Your task to perform on an android device: Open location settings Image 0: 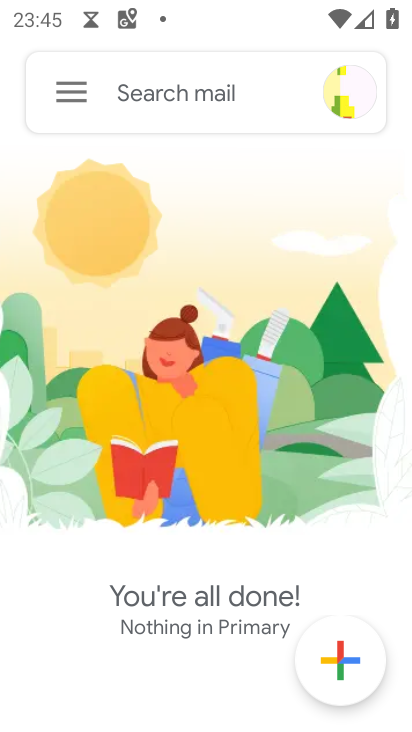
Step 0: press home button
Your task to perform on an android device: Open location settings Image 1: 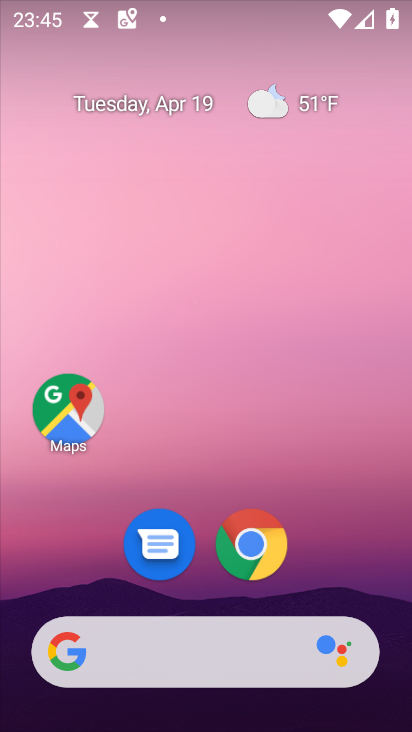
Step 1: drag from (303, 570) to (348, 39)
Your task to perform on an android device: Open location settings Image 2: 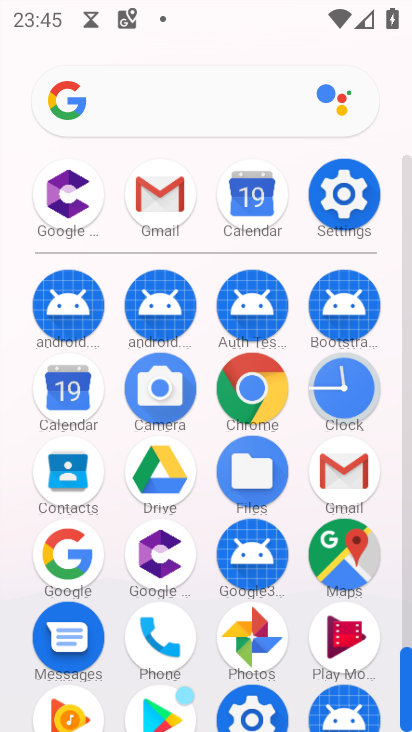
Step 2: click (337, 194)
Your task to perform on an android device: Open location settings Image 3: 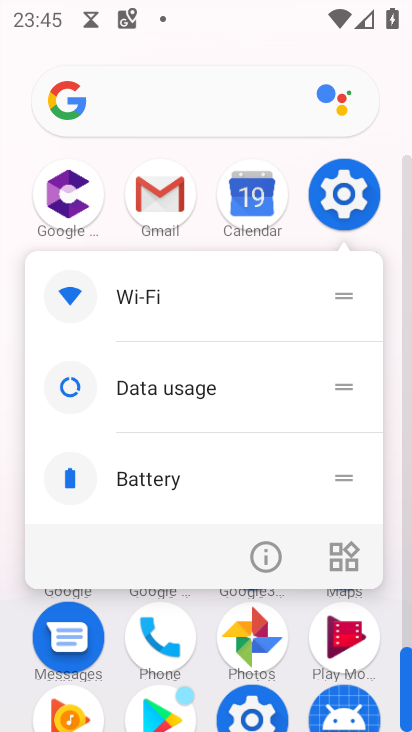
Step 3: click (337, 194)
Your task to perform on an android device: Open location settings Image 4: 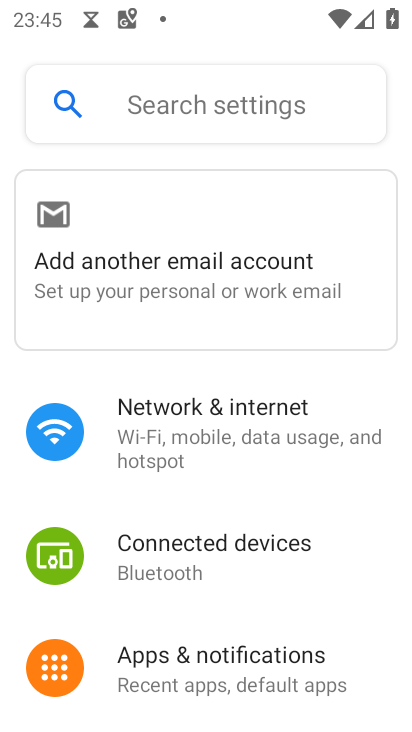
Step 4: drag from (254, 286) to (274, 191)
Your task to perform on an android device: Open location settings Image 5: 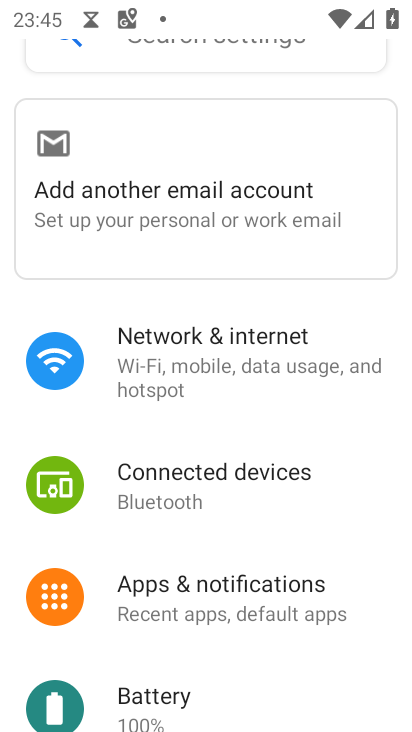
Step 5: drag from (257, 298) to (282, 213)
Your task to perform on an android device: Open location settings Image 6: 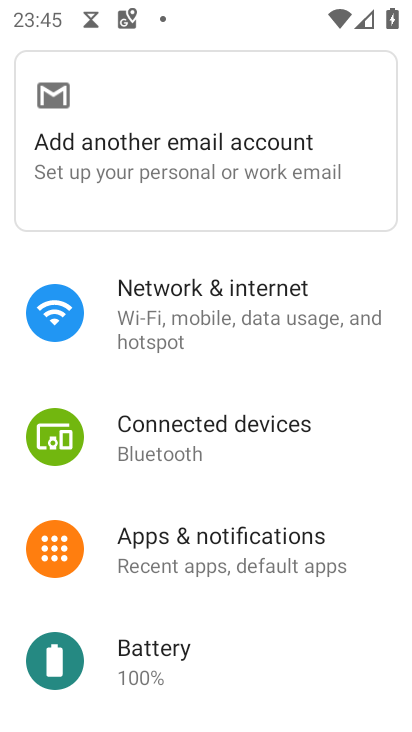
Step 6: drag from (276, 327) to (285, 257)
Your task to perform on an android device: Open location settings Image 7: 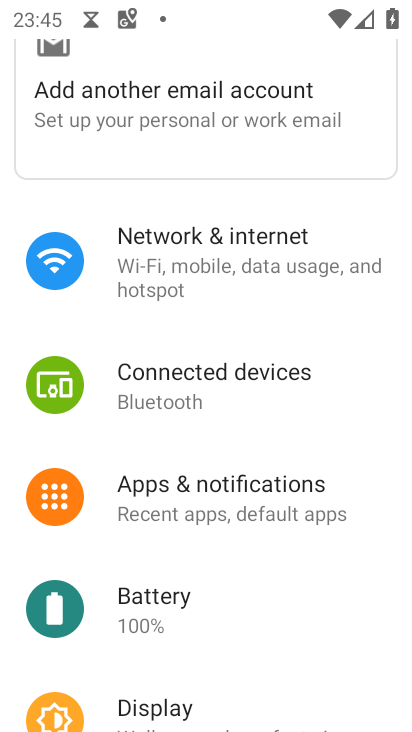
Step 7: drag from (286, 335) to (290, 267)
Your task to perform on an android device: Open location settings Image 8: 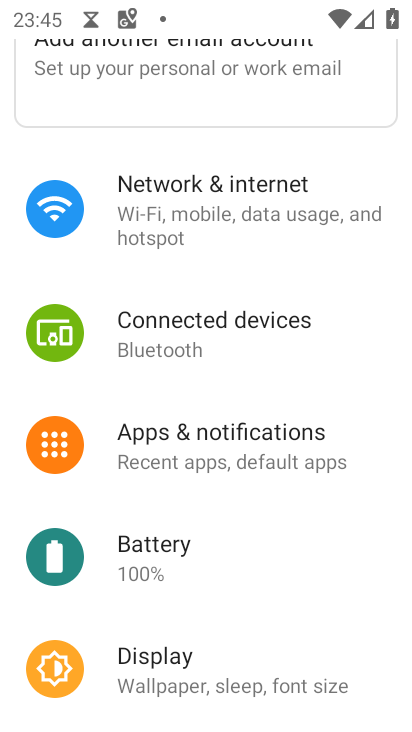
Step 8: drag from (295, 363) to (309, 305)
Your task to perform on an android device: Open location settings Image 9: 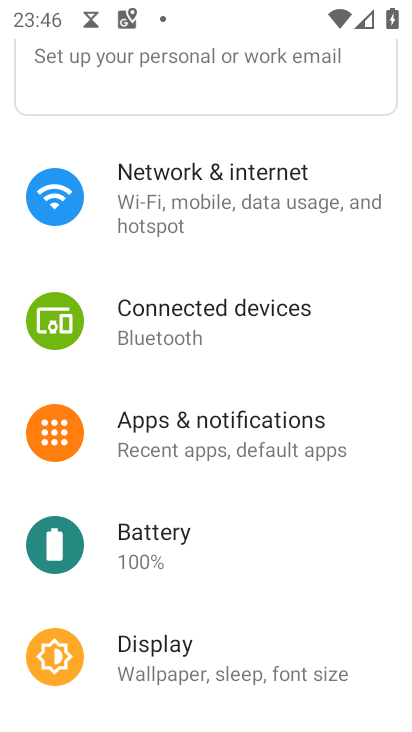
Step 9: drag from (290, 377) to (317, 299)
Your task to perform on an android device: Open location settings Image 10: 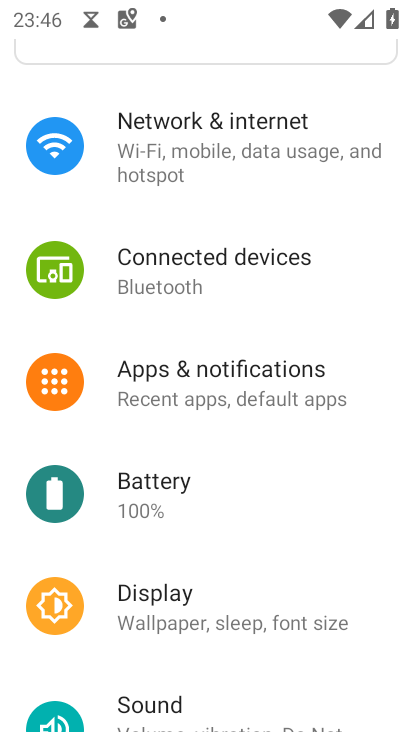
Step 10: drag from (334, 367) to (343, 276)
Your task to perform on an android device: Open location settings Image 11: 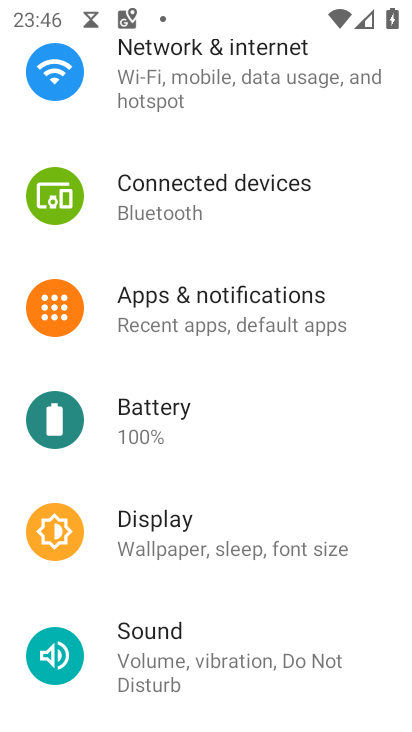
Step 11: drag from (292, 386) to (295, 310)
Your task to perform on an android device: Open location settings Image 12: 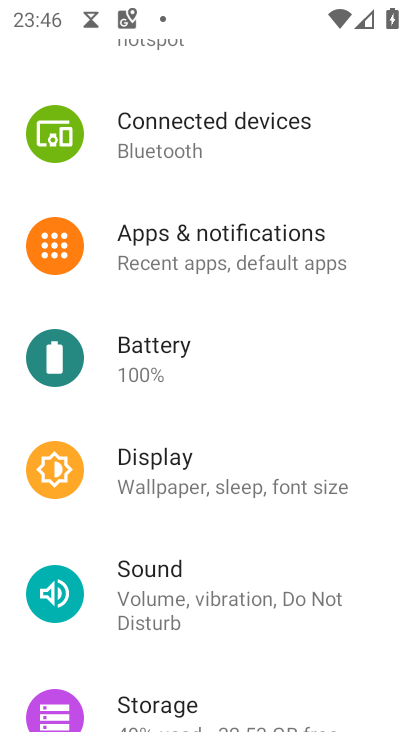
Step 12: drag from (285, 413) to (314, 324)
Your task to perform on an android device: Open location settings Image 13: 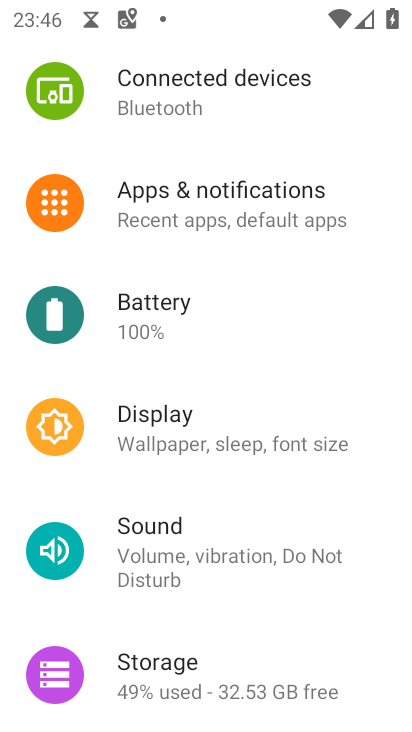
Step 13: drag from (320, 369) to (333, 293)
Your task to perform on an android device: Open location settings Image 14: 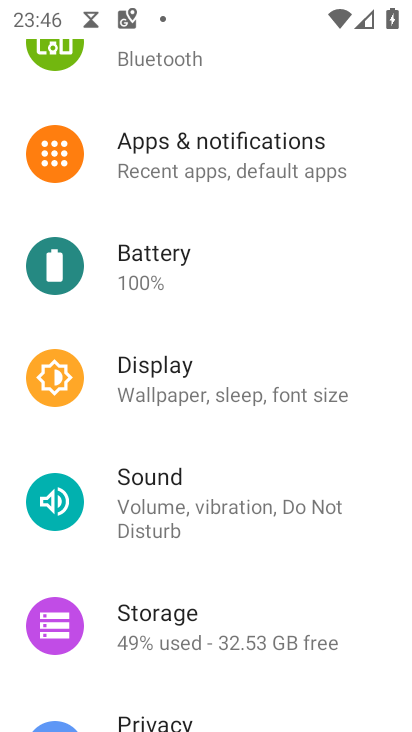
Step 14: drag from (309, 405) to (312, 342)
Your task to perform on an android device: Open location settings Image 15: 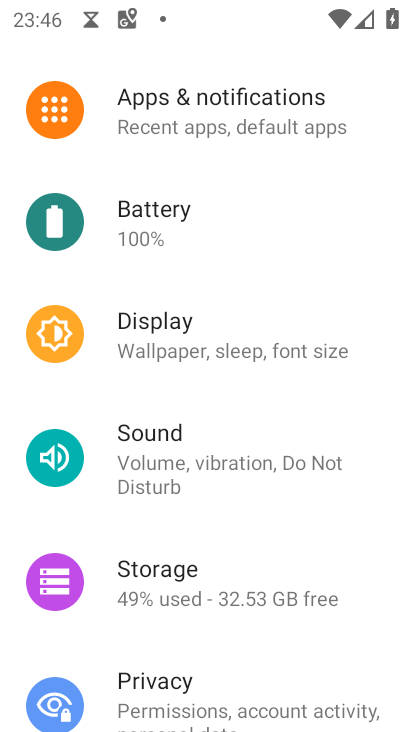
Step 15: drag from (284, 408) to (322, 320)
Your task to perform on an android device: Open location settings Image 16: 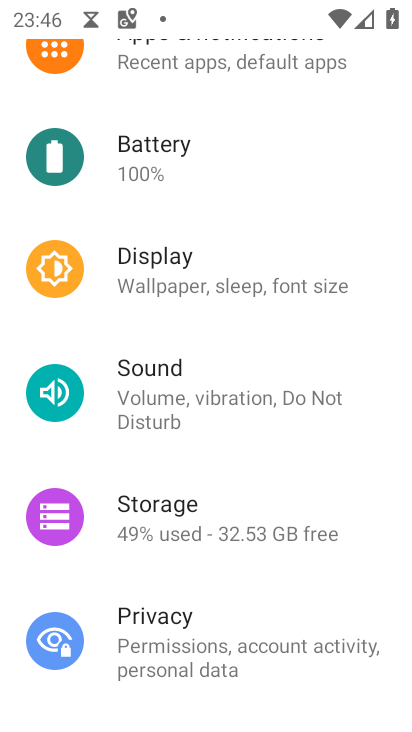
Step 16: drag from (283, 401) to (302, 320)
Your task to perform on an android device: Open location settings Image 17: 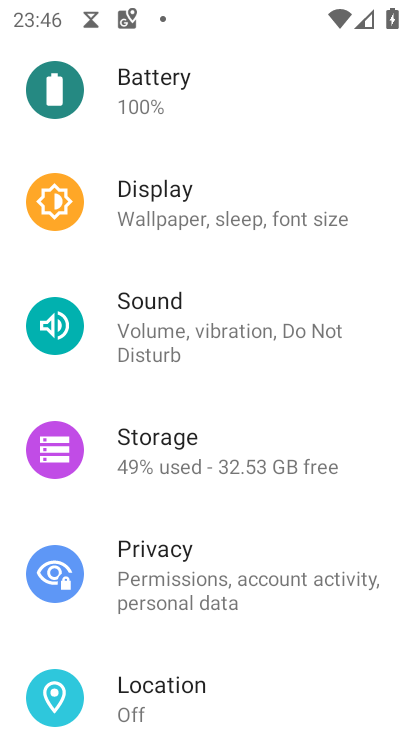
Step 17: drag from (270, 411) to (289, 337)
Your task to perform on an android device: Open location settings Image 18: 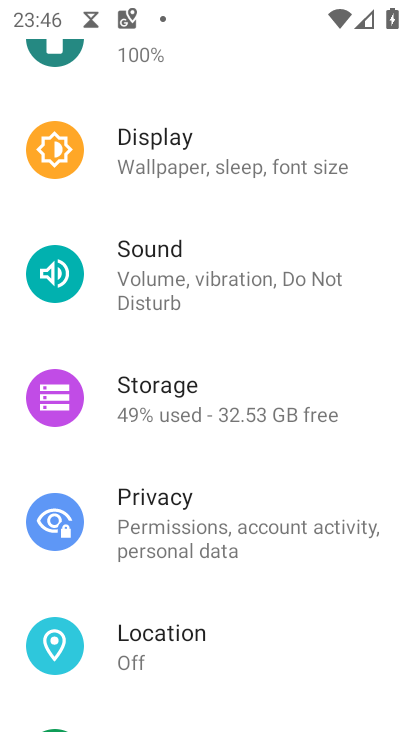
Step 18: drag from (293, 400) to (315, 310)
Your task to perform on an android device: Open location settings Image 19: 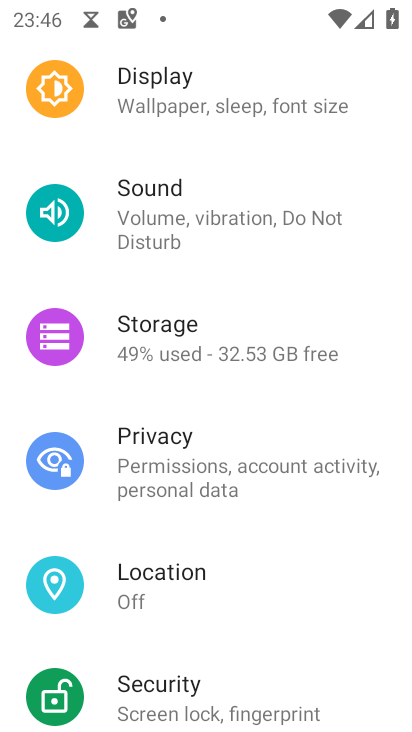
Step 19: click (127, 577)
Your task to perform on an android device: Open location settings Image 20: 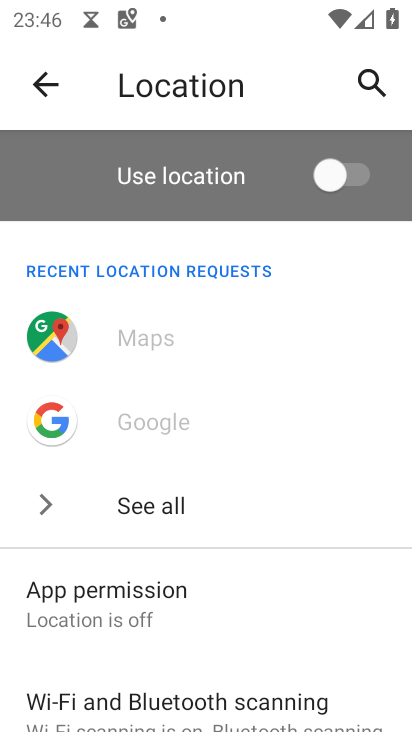
Step 20: task complete